Your task to perform on an android device: Open maps Image 0: 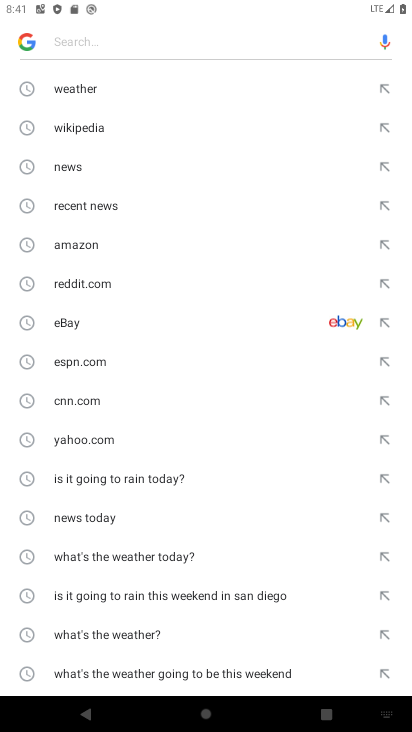
Step 0: press home button
Your task to perform on an android device: Open maps Image 1: 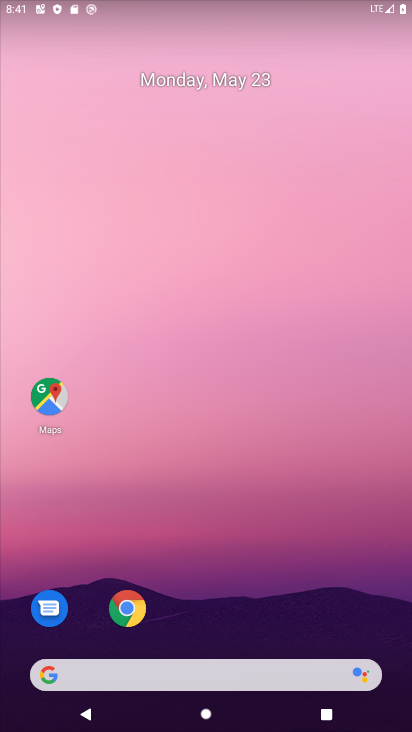
Step 1: click (44, 405)
Your task to perform on an android device: Open maps Image 2: 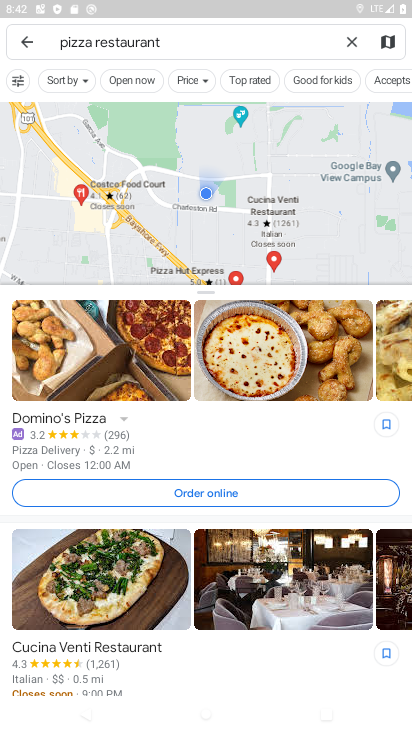
Step 2: task complete